Your task to perform on an android device: open the mobile data screen to see how much data has been used Image 0: 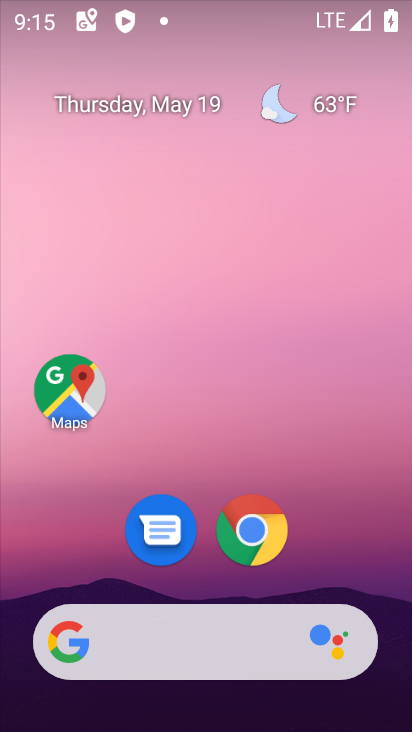
Step 0: drag from (270, 577) to (332, 0)
Your task to perform on an android device: open the mobile data screen to see how much data has been used Image 1: 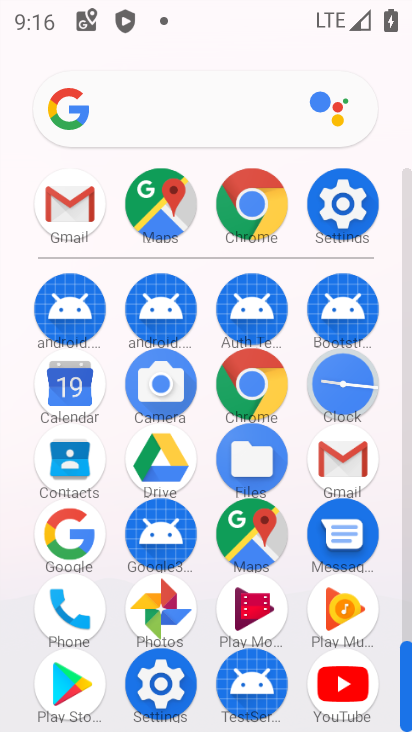
Step 1: click (353, 219)
Your task to perform on an android device: open the mobile data screen to see how much data has been used Image 2: 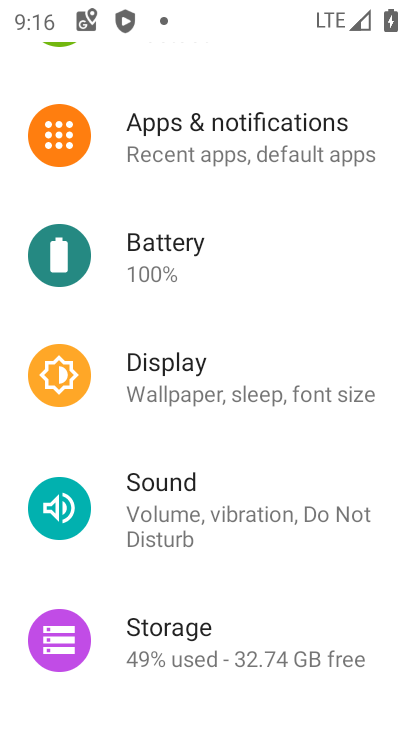
Step 2: drag from (272, 543) to (280, 441)
Your task to perform on an android device: open the mobile data screen to see how much data has been used Image 3: 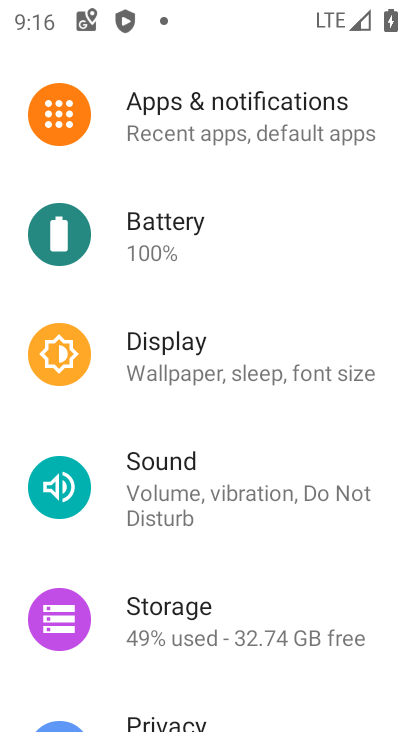
Step 3: drag from (334, 135) to (193, 707)
Your task to perform on an android device: open the mobile data screen to see how much data has been used Image 4: 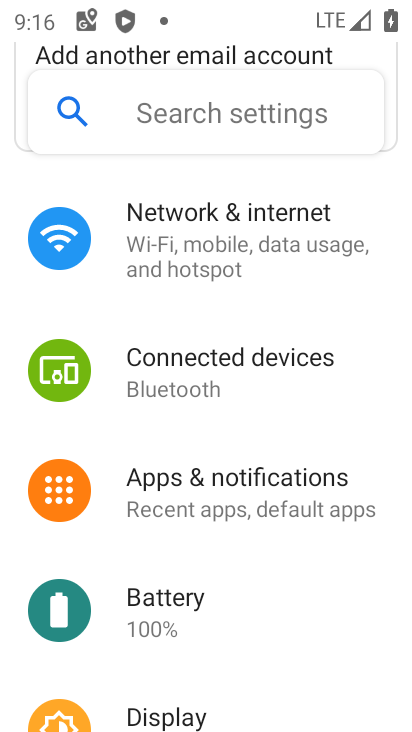
Step 4: click (324, 228)
Your task to perform on an android device: open the mobile data screen to see how much data has been used Image 5: 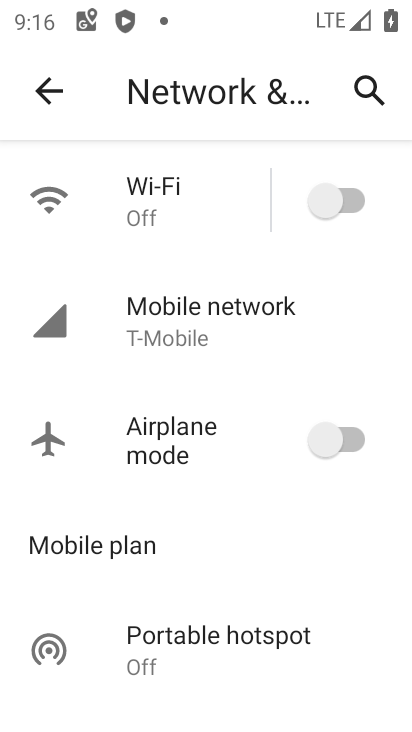
Step 5: click (275, 318)
Your task to perform on an android device: open the mobile data screen to see how much data has been used Image 6: 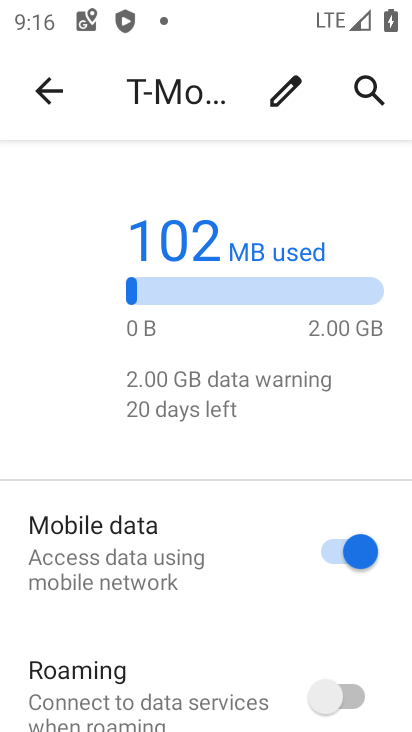
Step 6: drag from (247, 609) to (296, 349)
Your task to perform on an android device: open the mobile data screen to see how much data has been used Image 7: 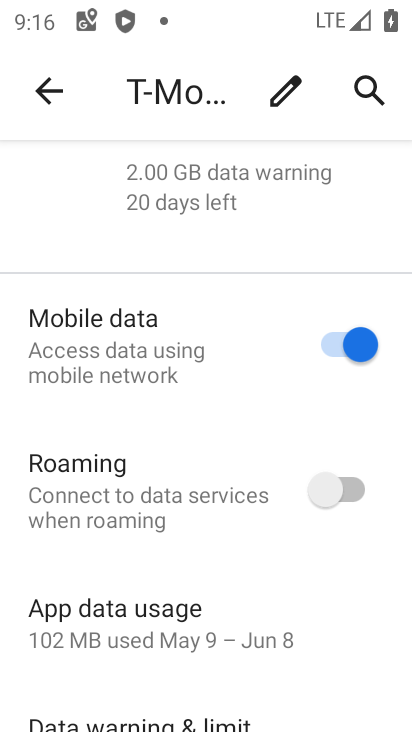
Step 7: click (250, 599)
Your task to perform on an android device: open the mobile data screen to see how much data has been used Image 8: 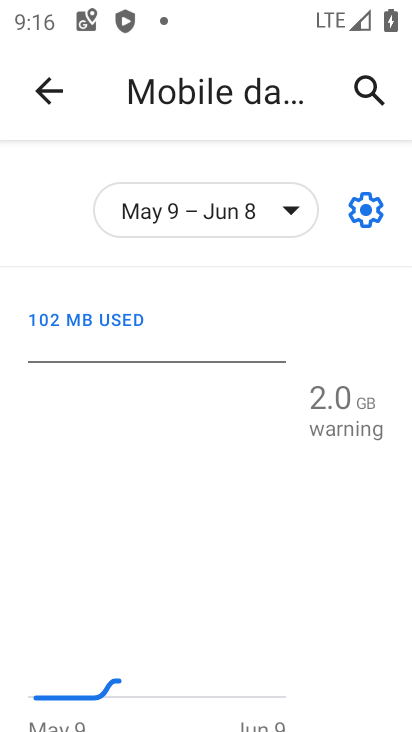
Step 8: task complete